Your task to perform on an android device: Open sound settings Image 0: 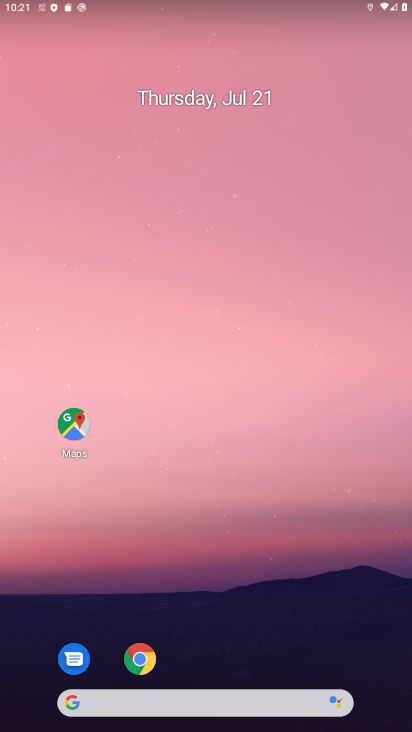
Step 0: click (376, 514)
Your task to perform on an android device: Open sound settings Image 1: 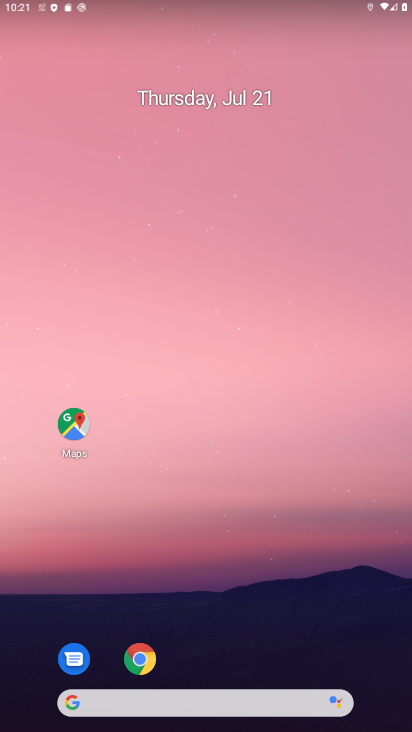
Step 1: drag from (210, 684) to (166, 18)
Your task to perform on an android device: Open sound settings Image 2: 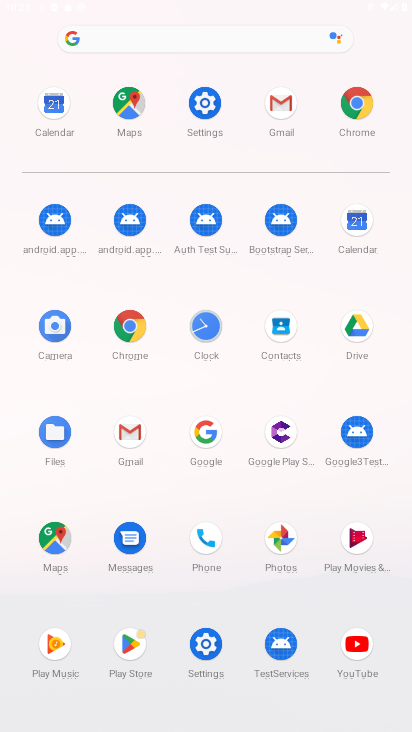
Step 2: click (214, 652)
Your task to perform on an android device: Open sound settings Image 3: 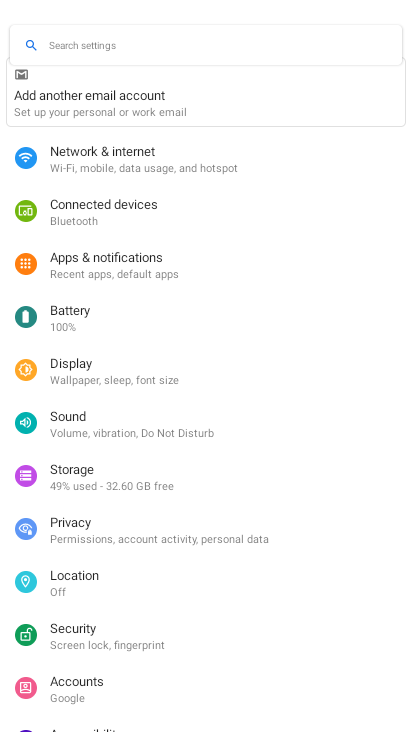
Step 3: click (78, 413)
Your task to perform on an android device: Open sound settings Image 4: 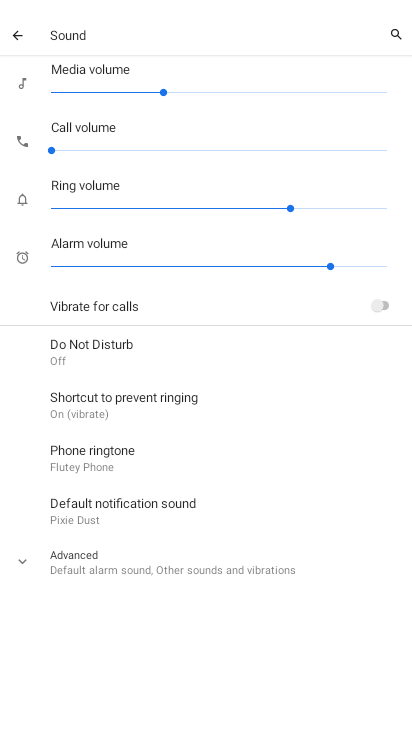
Step 4: task complete